Your task to perform on an android device: Open Maps and search for coffee Image 0: 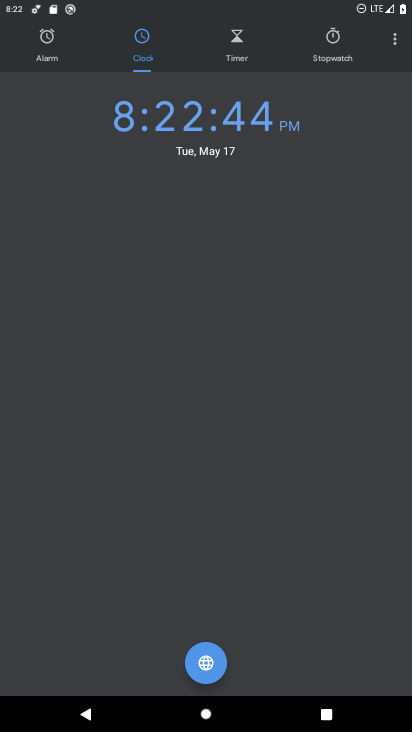
Step 0: press home button
Your task to perform on an android device: Open Maps and search for coffee Image 1: 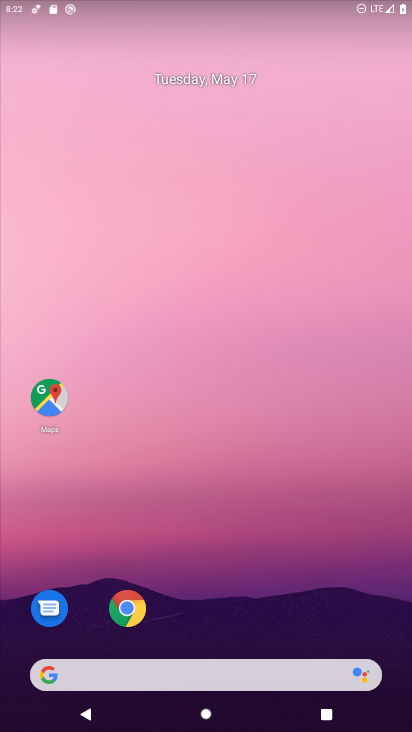
Step 1: click (63, 383)
Your task to perform on an android device: Open Maps and search for coffee Image 2: 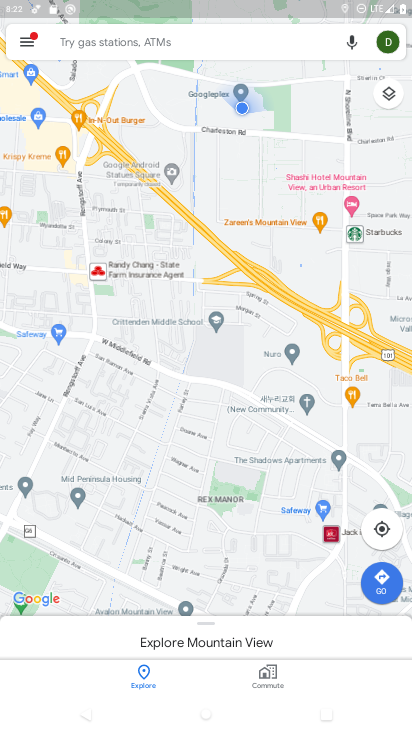
Step 2: click (169, 44)
Your task to perform on an android device: Open Maps and search for coffee Image 3: 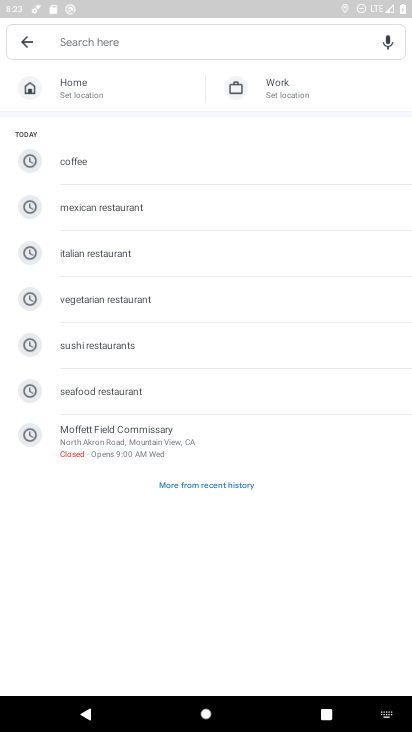
Step 3: type "coffee"
Your task to perform on an android device: Open Maps and search for coffee Image 4: 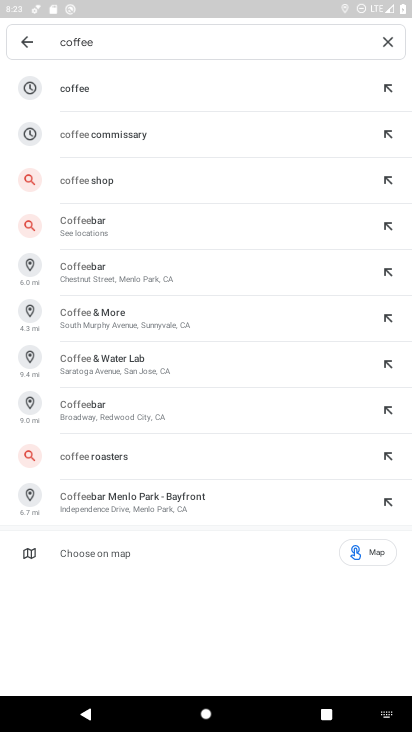
Step 4: click (111, 98)
Your task to perform on an android device: Open Maps and search for coffee Image 5: 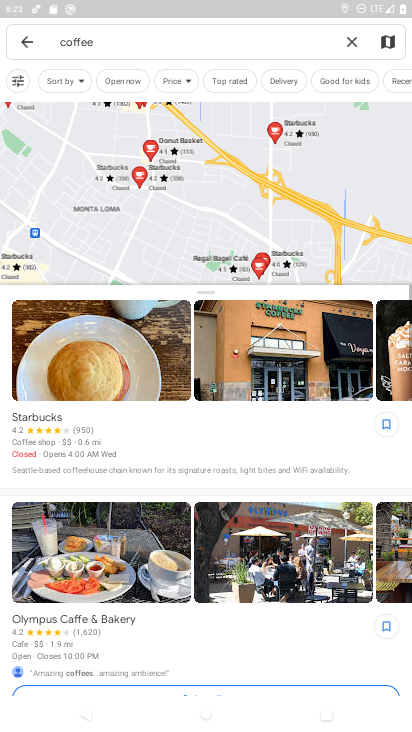
Step 5: task complete